Your task to perform on an android device: Open privacy settings Image 0: 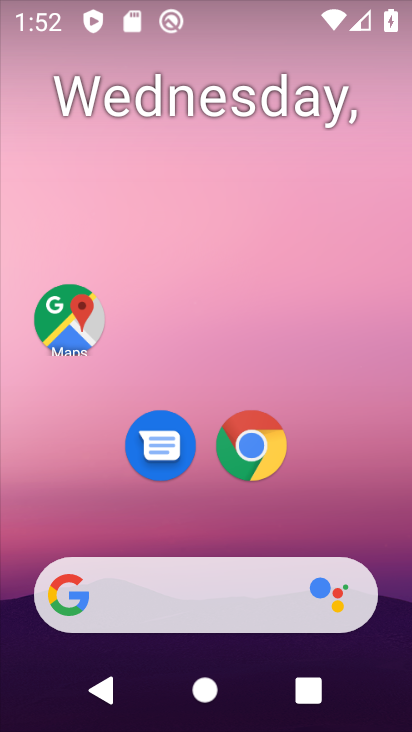
Step 0: drag from (207, 505) to (224, 98)
Your task to perform on an android device: Open privacy settings Image 1: 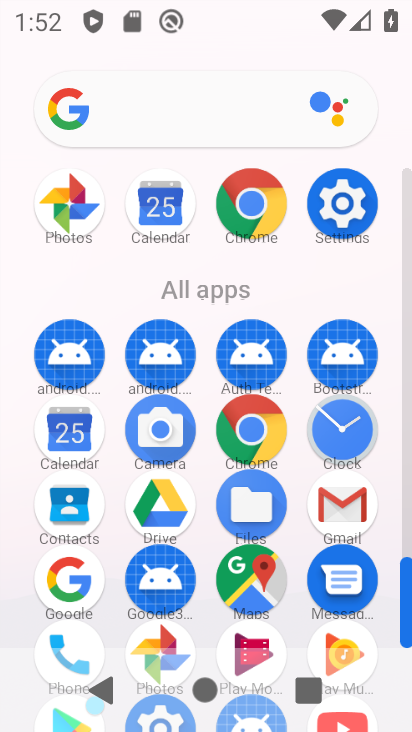
Step 1: click (317, 204)
Your task to perform on an android device: Open privacy settings Image 2: 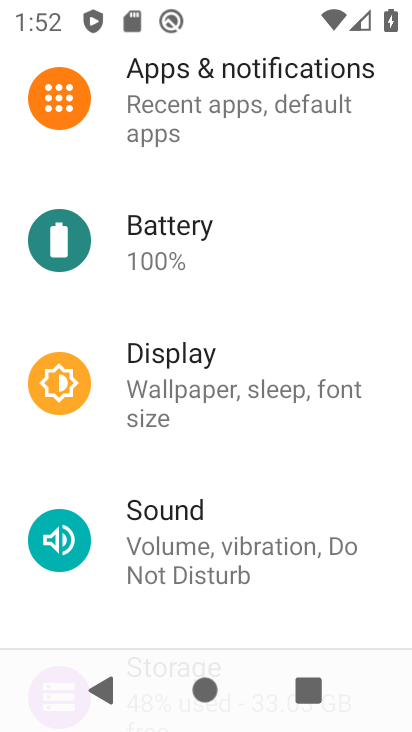
Step 2: drag from (176, 513) to (181, 246)
Your task to perform on an android device: Open privacy settings Image 3: 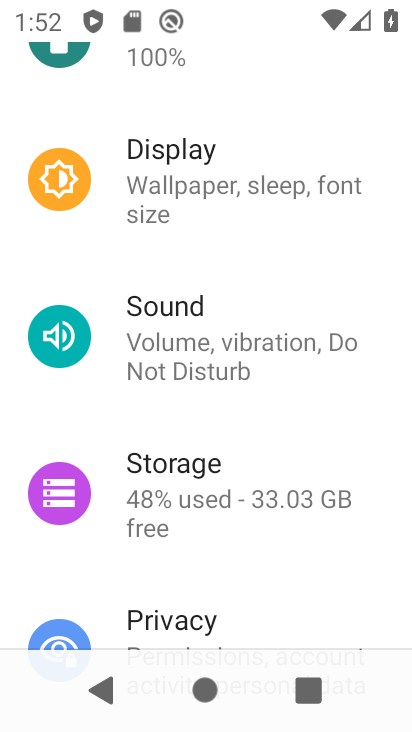
Step 3: click (211, 616)
Your task to perform on an android device: Open privacy settings Image 4: 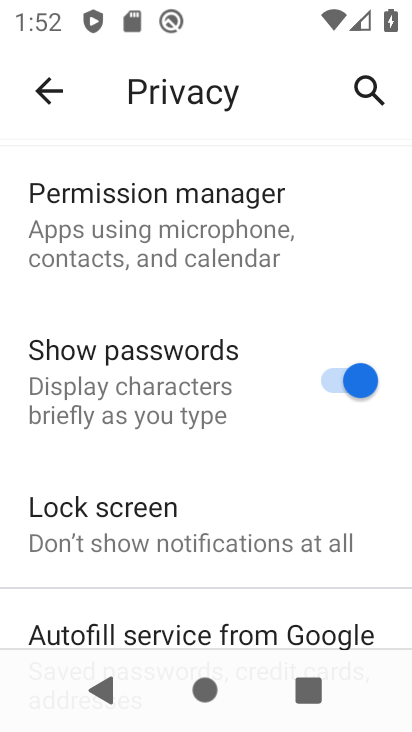
Step 4: task complete